Your task to perform on an android device: Search for vegetarian restaurants on Maps Image 0: 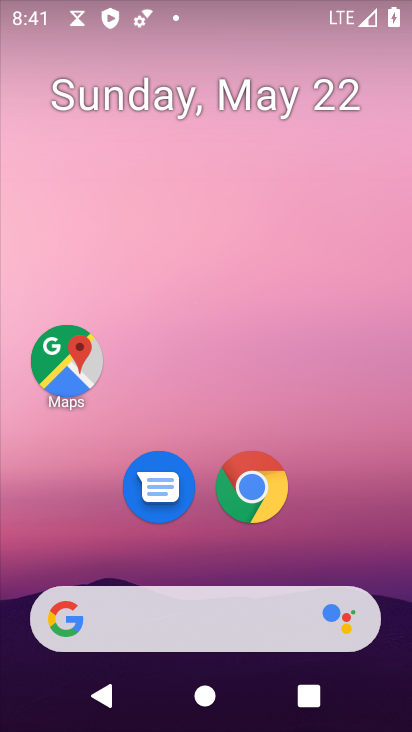
Step 0: drag from (340, 524) to (372, 7)
Your task to perform on an android device: Search for vegetarian restaurants on Maps Image 1: 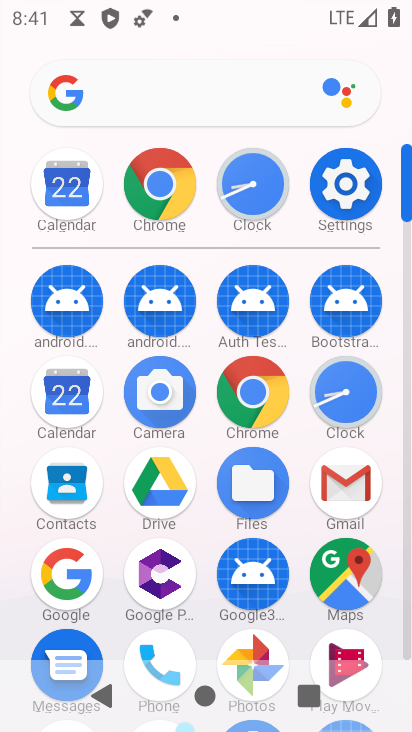
Step 1: click (368, 580)
Your task to perform on an android device: Search for vegetarian restaurants on Maps Image 2: 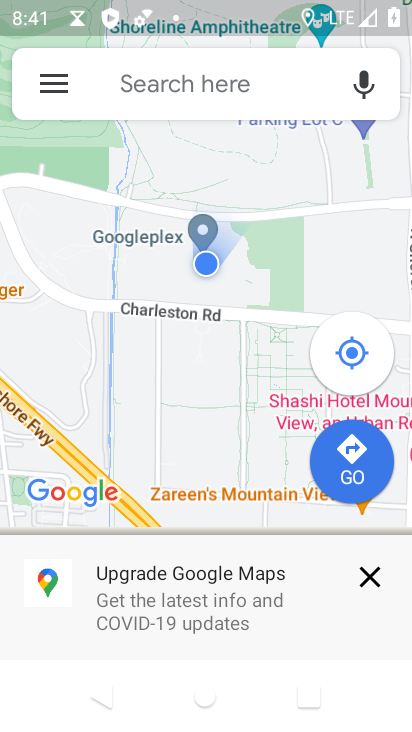
Step 2: click (191, 100)
Your task to perform on an android device: Search for vegetarian restaurants on Maps Image 3: 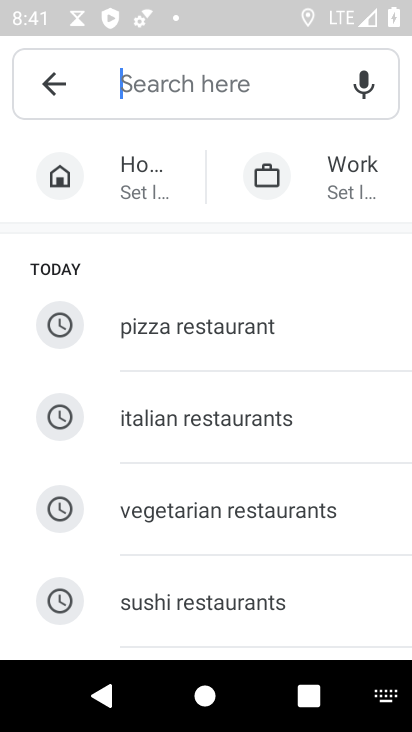
Step 3: click (252, 509)
Your task to perform on an android device: Search for vegetarian restaurants on Maps Image 4: 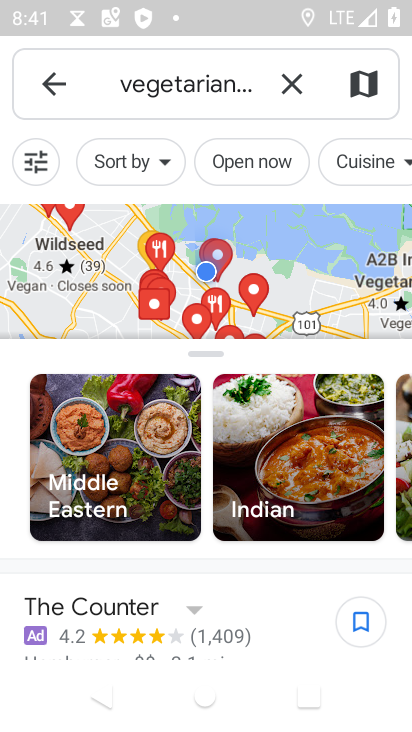
Step 4: task complete